Your task to perform on an android device: open app "LiveIn - Share Your Moment" (install if not already installed) and enter user name: "certifies@gmail.com" and password: "compartmented" Image 0: 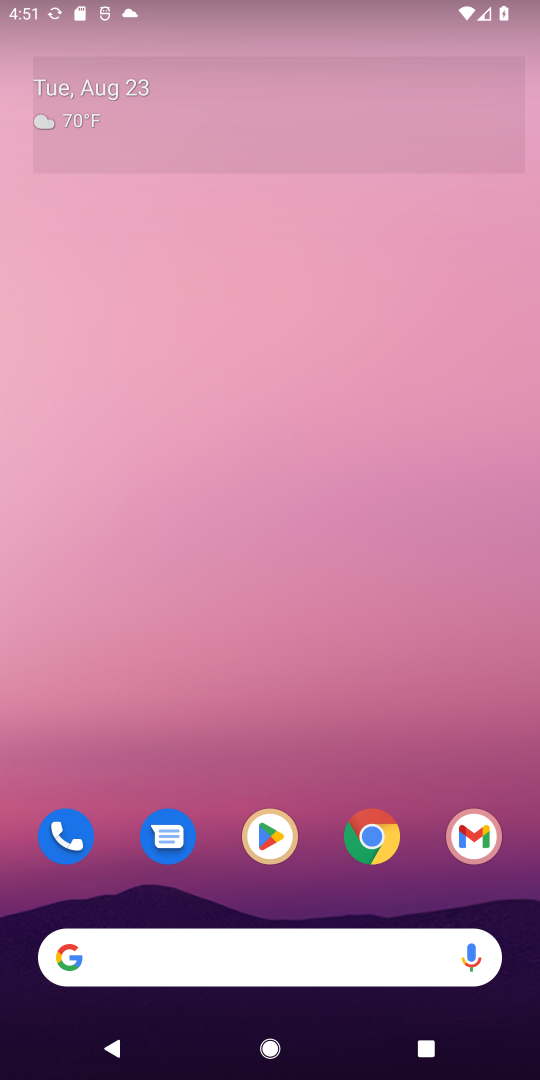
Step 0: click (271, 839)
Your task to perform on an android device: open app "LiveIn - Share Your Moment" (install if not already installed) and enter user name: "certifies@gmail.com" and password: "compartmented" Image 1: 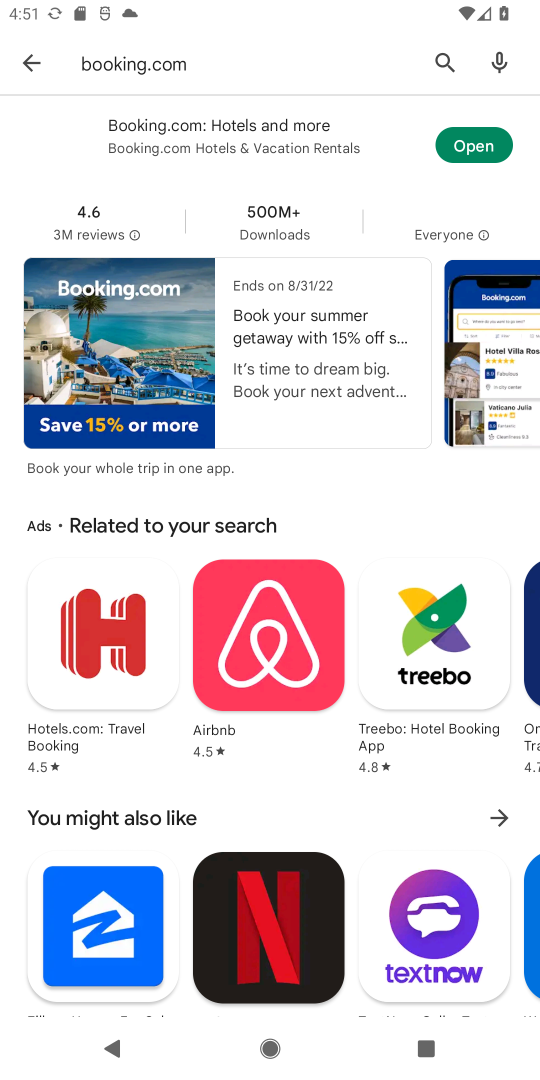
Step 1: click (448, 52)
Your task to perform on an android device: open app "LiveIn - Share Your Moment" (install if not already installed) and enter user name: "certifies@gmail.com" and password: "compartmented" Image 2: 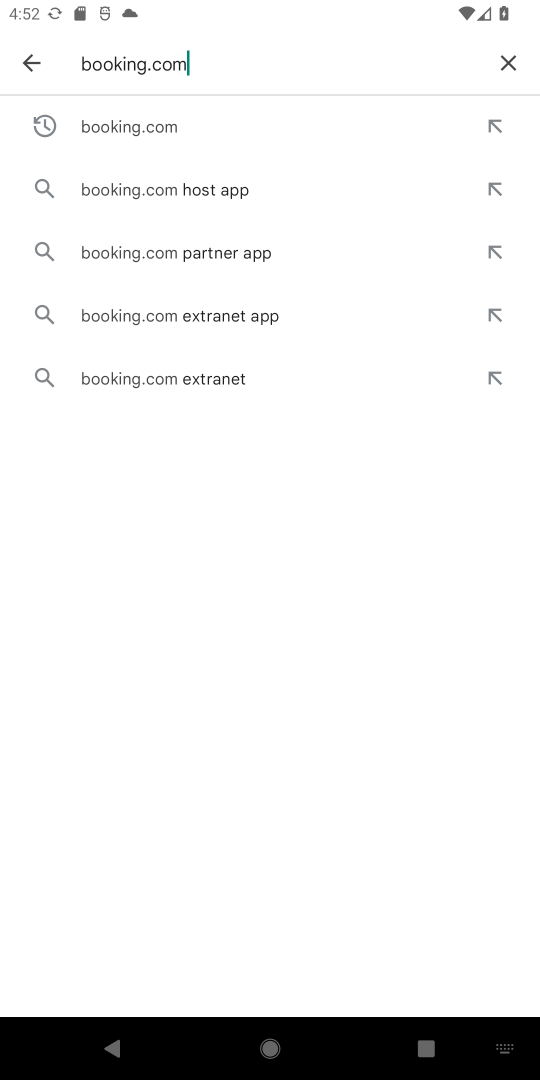
Step 2: click (504, 60)
Your task to perform on an android device: open app "LiveIn - Share Your Moment" (install if not already installed) and enter user name: "certifies@gmail.com" and password: "compartmented" Image 3: 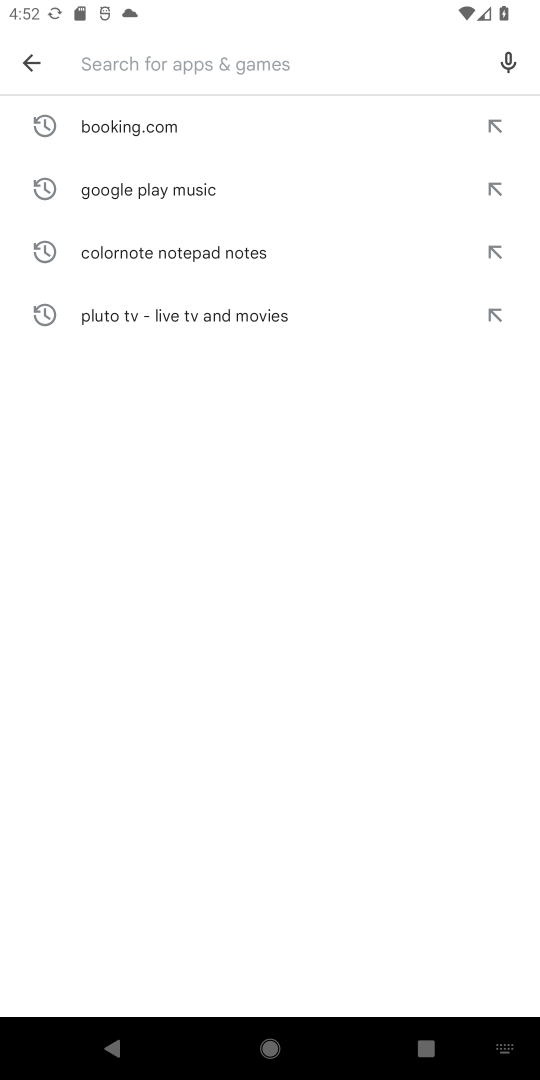
Step 3: type "LiveIn - Share Your Moment"
Your task to perform on an android device: open app "LiveIn - Share Your Moment" (install if not already installed) and enter user name: "certifies@gmail.com" and password: "compartmented" Image 4: 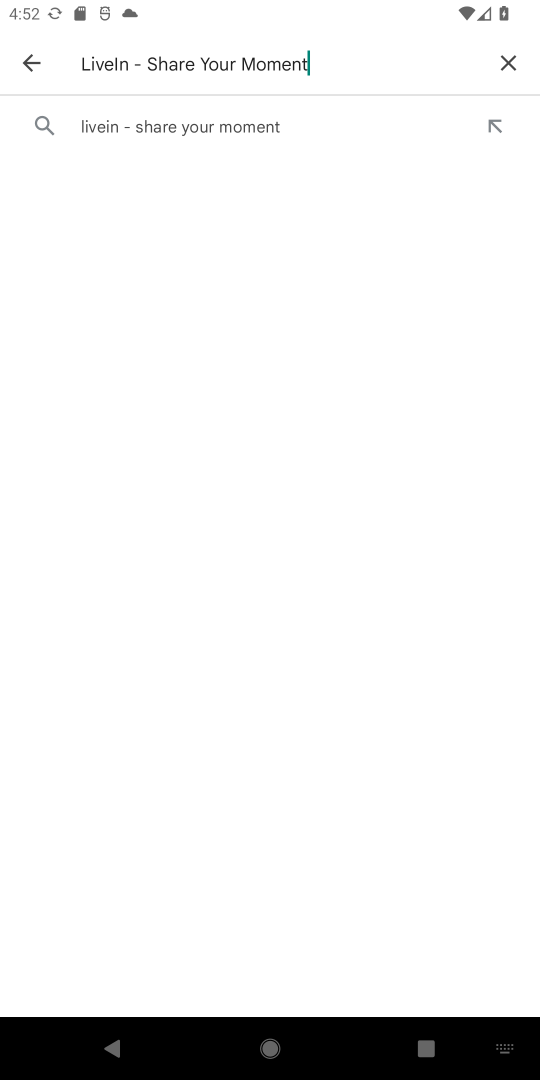
Step 4: click (169, 127)
Your task to perform on an android device: open app "LiveIn - Share Your Moment" (install if not already installed) and enter user name: "certifies@gmail.com" and password: "compartmented" Image 5: 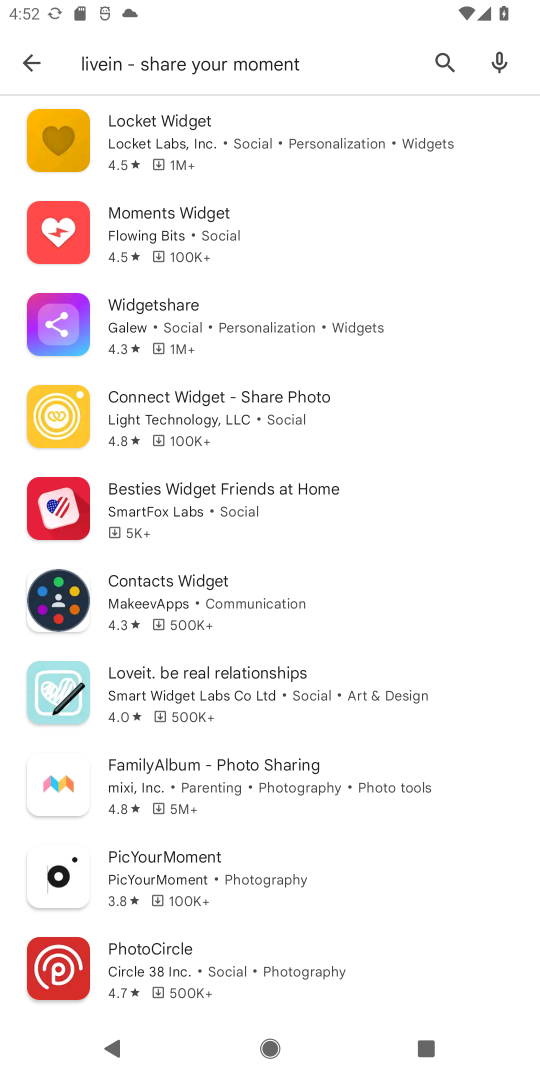
Step 5: task complete